Your task to perform on an android device: Show the shopping cart on costco. Add bose quietcomfort 35 to the cart on costco Image 0: 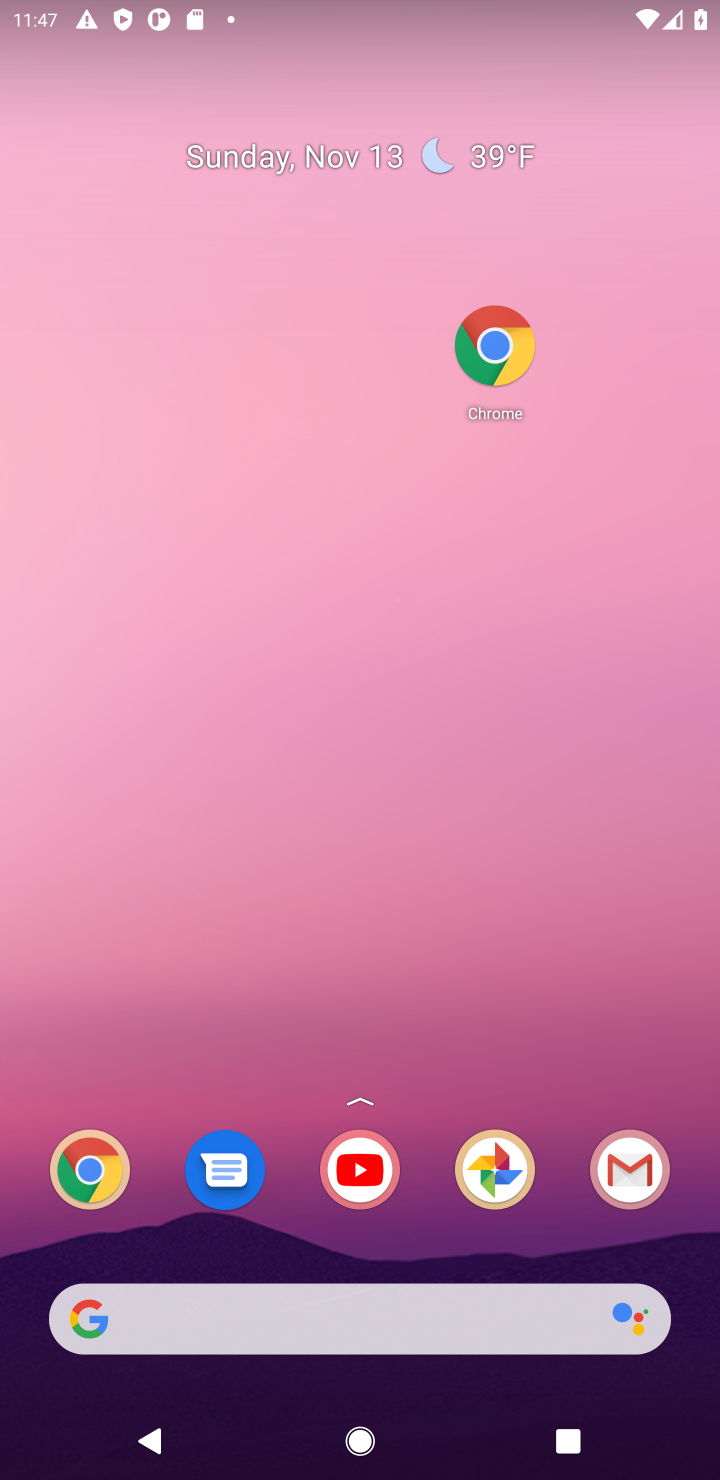
Step 0: drag from (270, 1194) to (217, 6)
Your task to perform on an android device: Show the shopping cart on costco. Add bose quietcomfort 35 to the cart on costco Image 1: 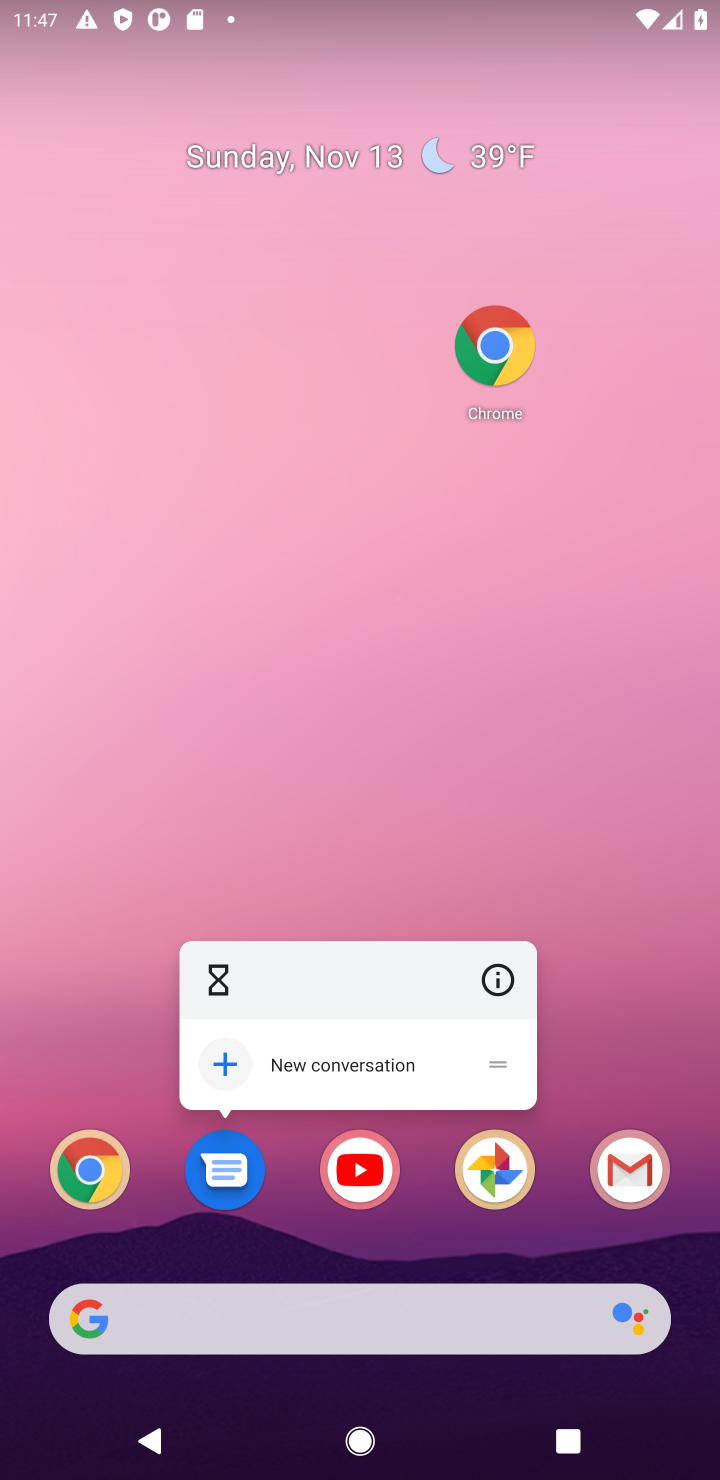
Step 1: click (371, 600)
Your task to perform on an android device: Show the shopping cart on costco. Add bose quietcomfort 35 to the cart on costco Image 2: 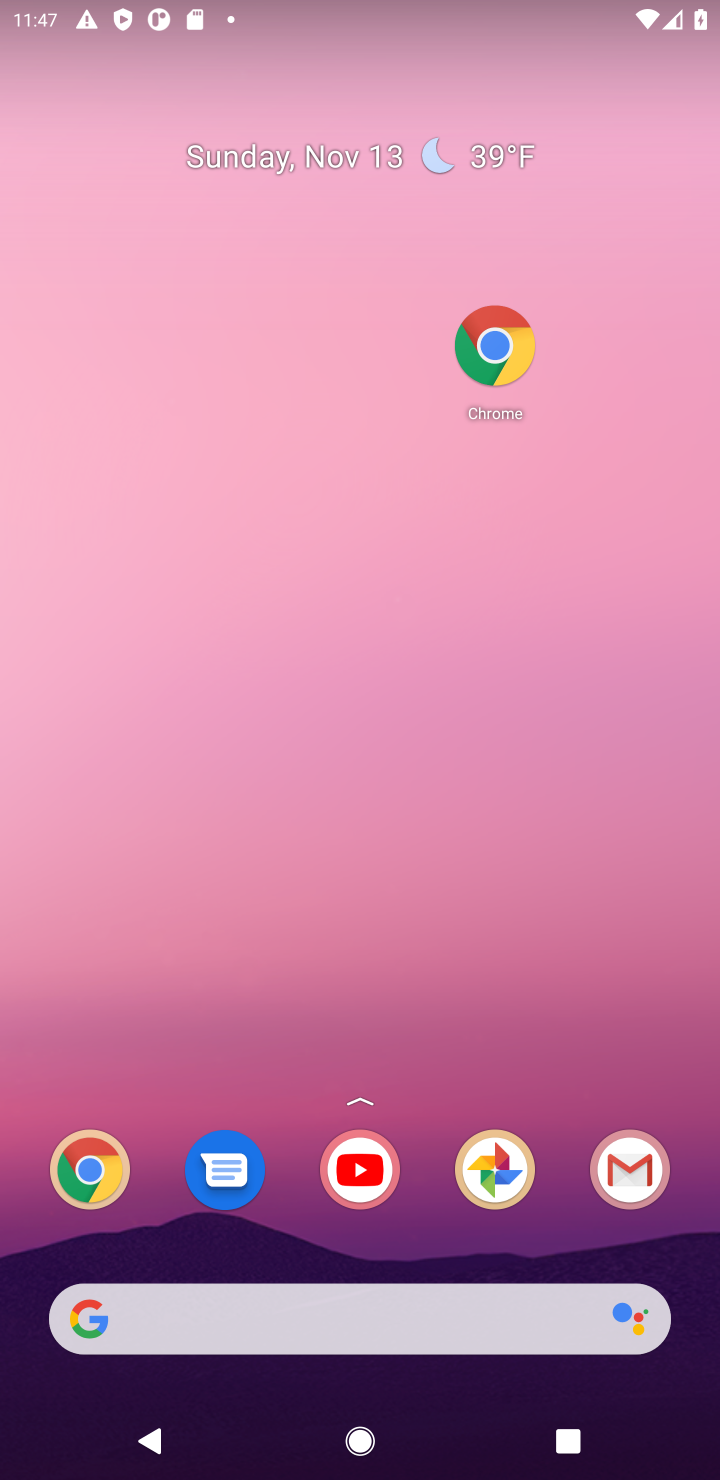
Step 2: drag from (330, 1256) to (285, 11)
Your task to perform on an android device: Show the shopping cart on costco. Add bose quietcomfort 35 to the cart on costco Image 3: 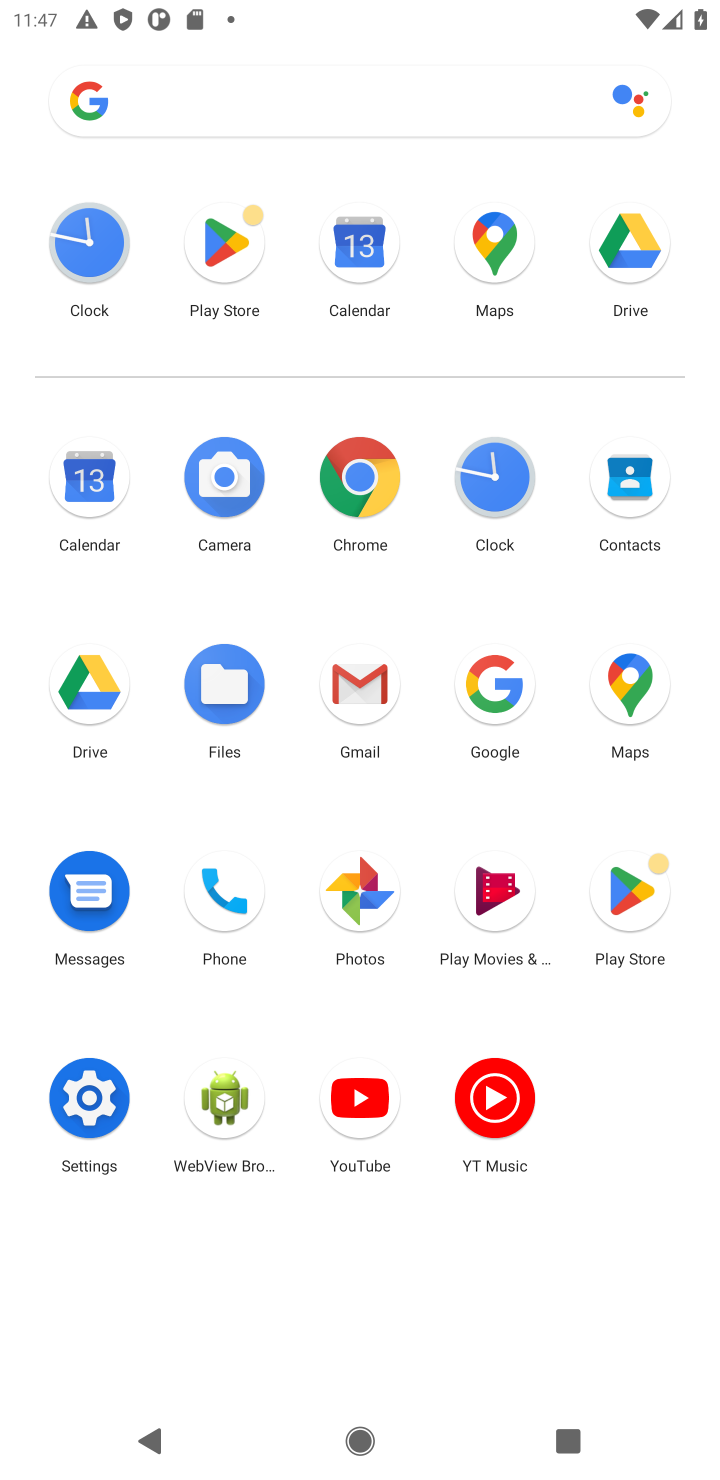
Step 3: click (378, 482)
Your task to perform on an android device: Show the shopping cart on costco. Add bose quietcomfort 35 to the cart on costco Image 4: 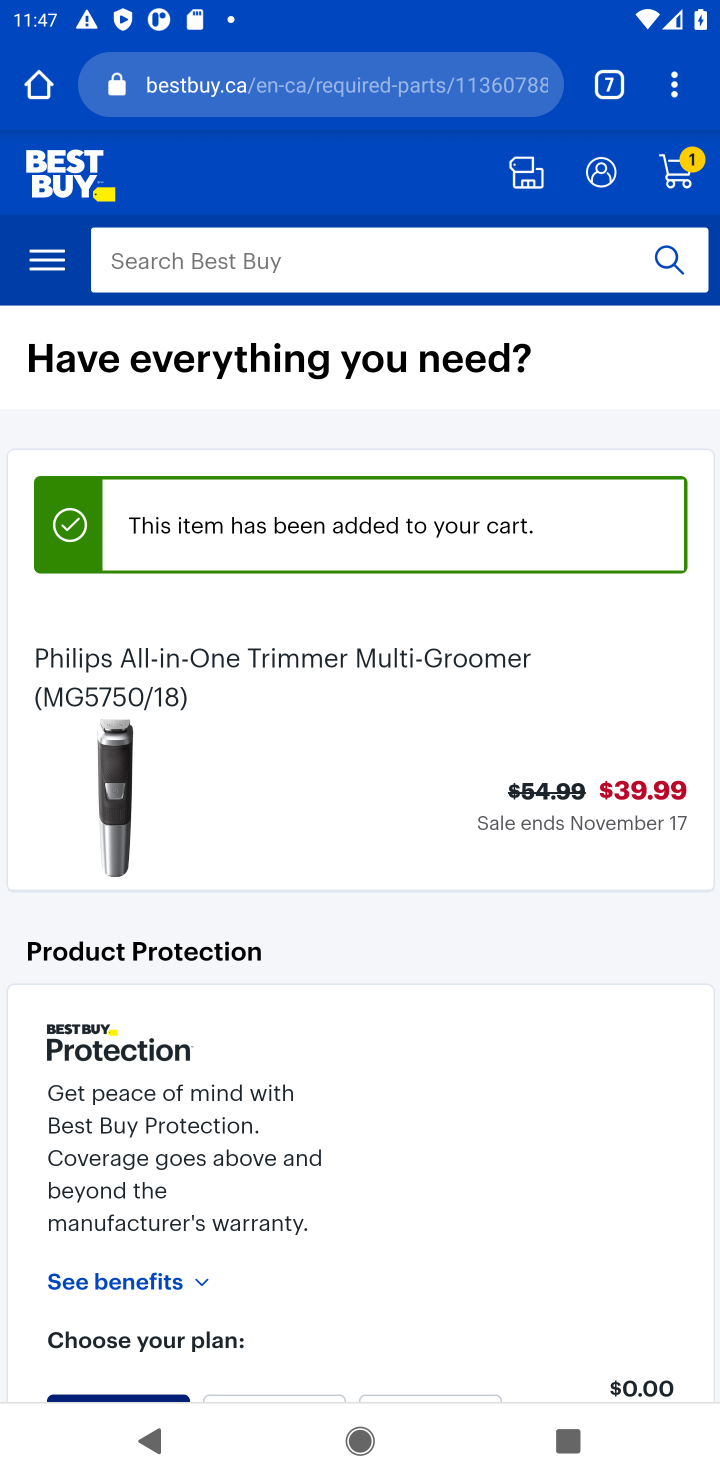
Step 4: click (387, 240)
Your task to perform on an android device: Show the shopping cart on costco. Add bose quietcomfort 35 to the cart on costco Image 5: 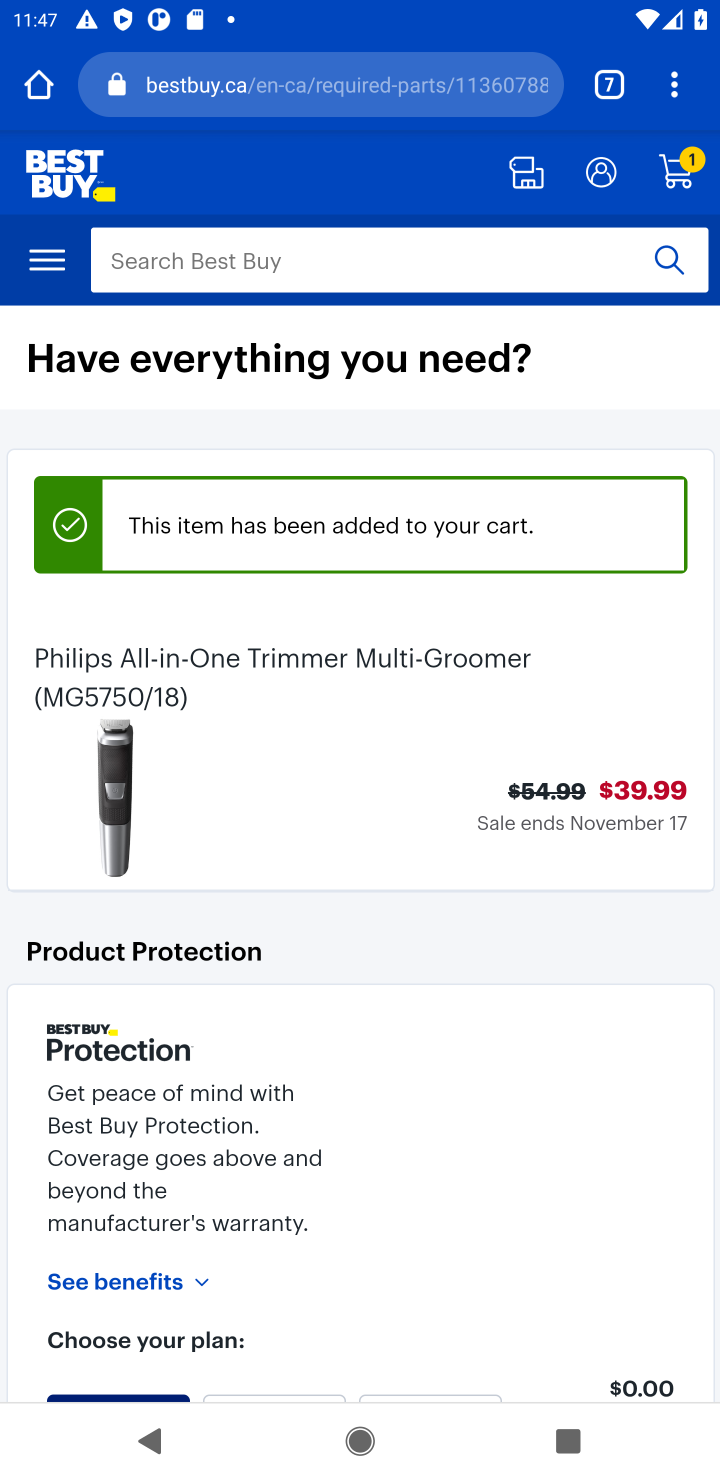
Step 5: click (375, 77)
Your task to perform on an android device: Show the shopping cart on costco. Add bose quietcomfort 35 to the cart on costco Image 6: 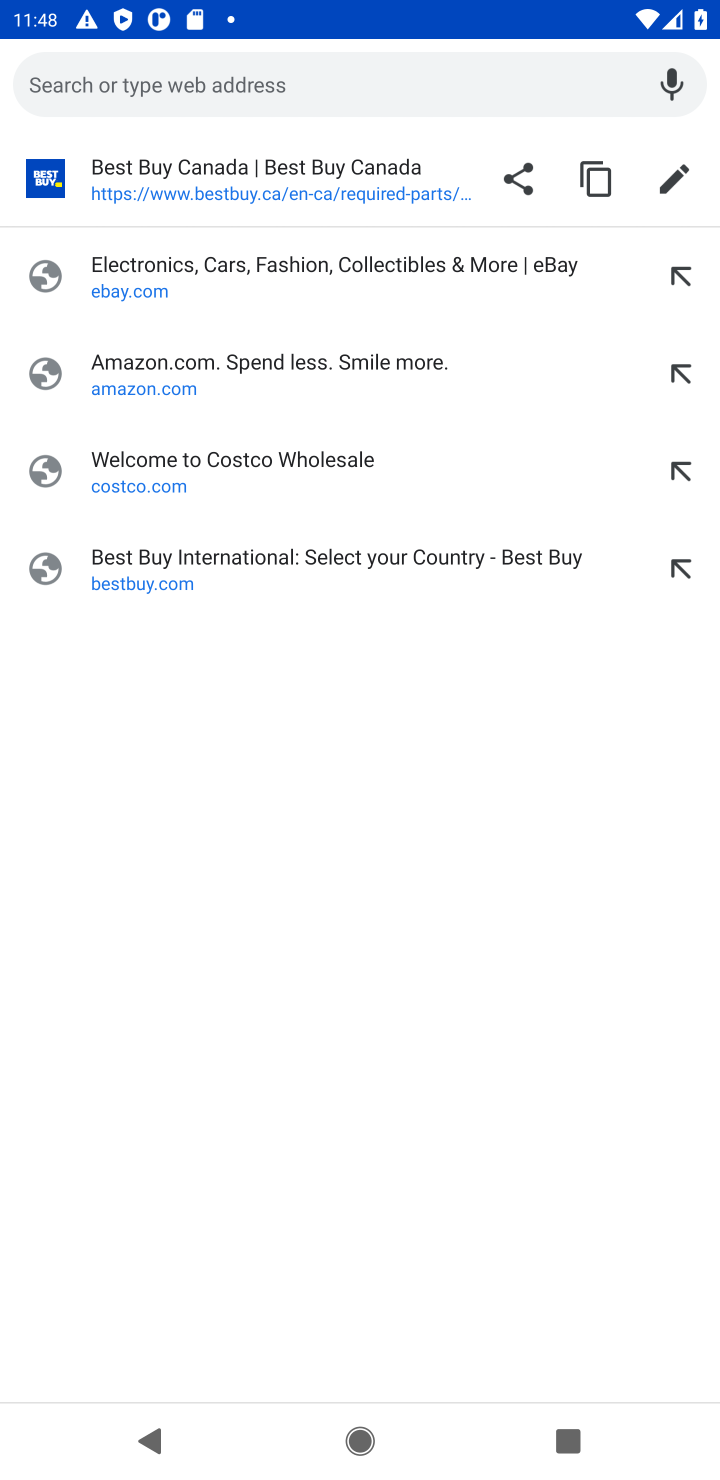
Step 6: type "costco"
Your task to perform on an android device: Show the shopping cart on costco. Add bose quietcomfort 35 to the cart on costco Image 7: 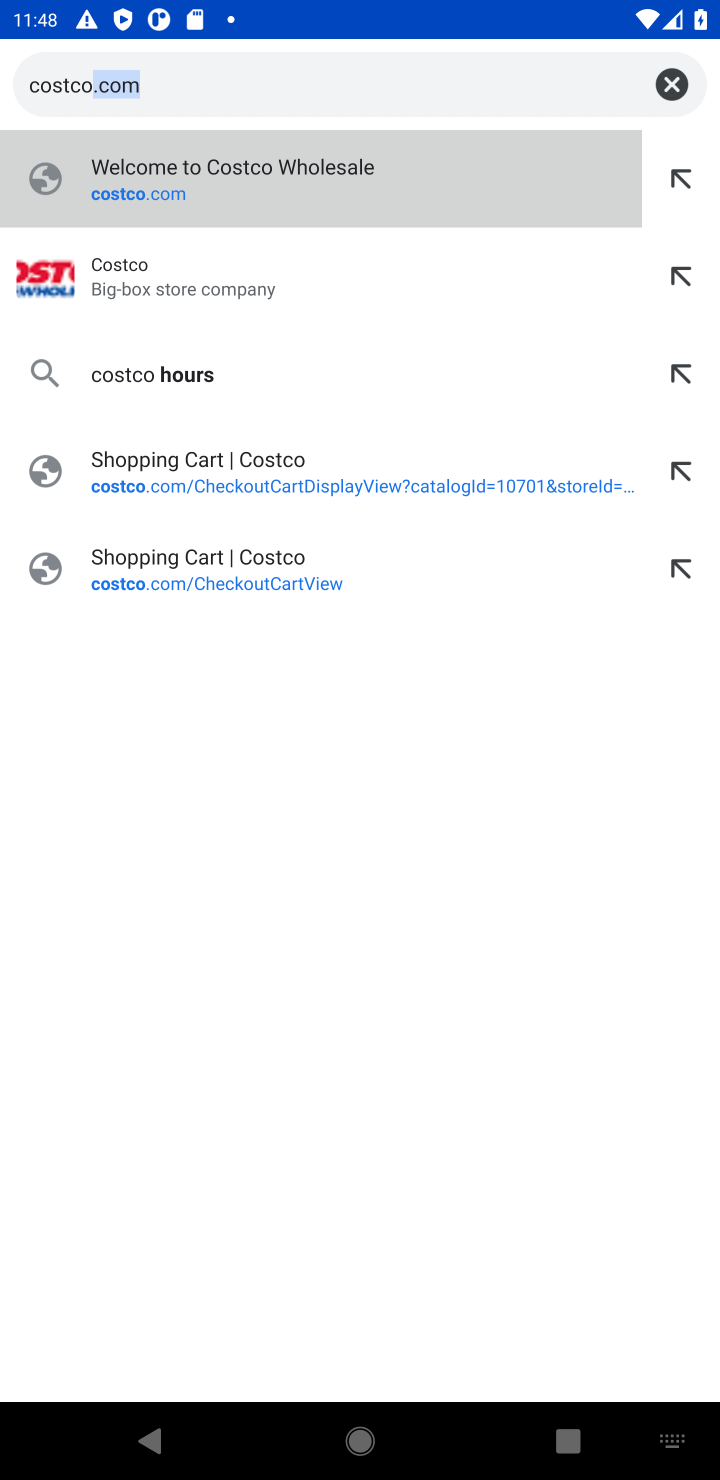
Step 7: press enter
Your task to perform on an android device: Show the shopping cart on costco. Add bose quietcomfort 35 to the cart on costco Image 8: 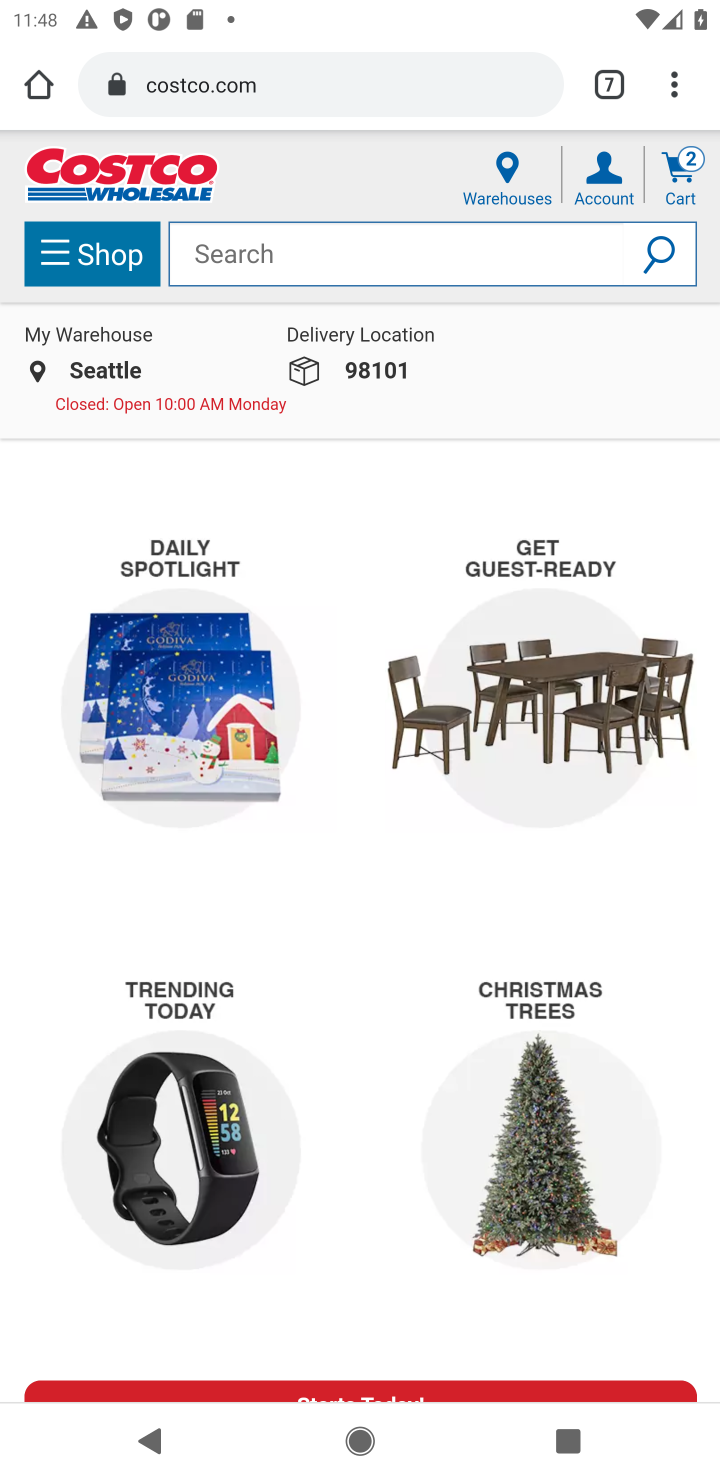
Step 8: click (279, 247)
Your task to perform on an android device: Show the shopping cart on costco. Add bose quietcomfort 35 to the cart on costco Image 9: 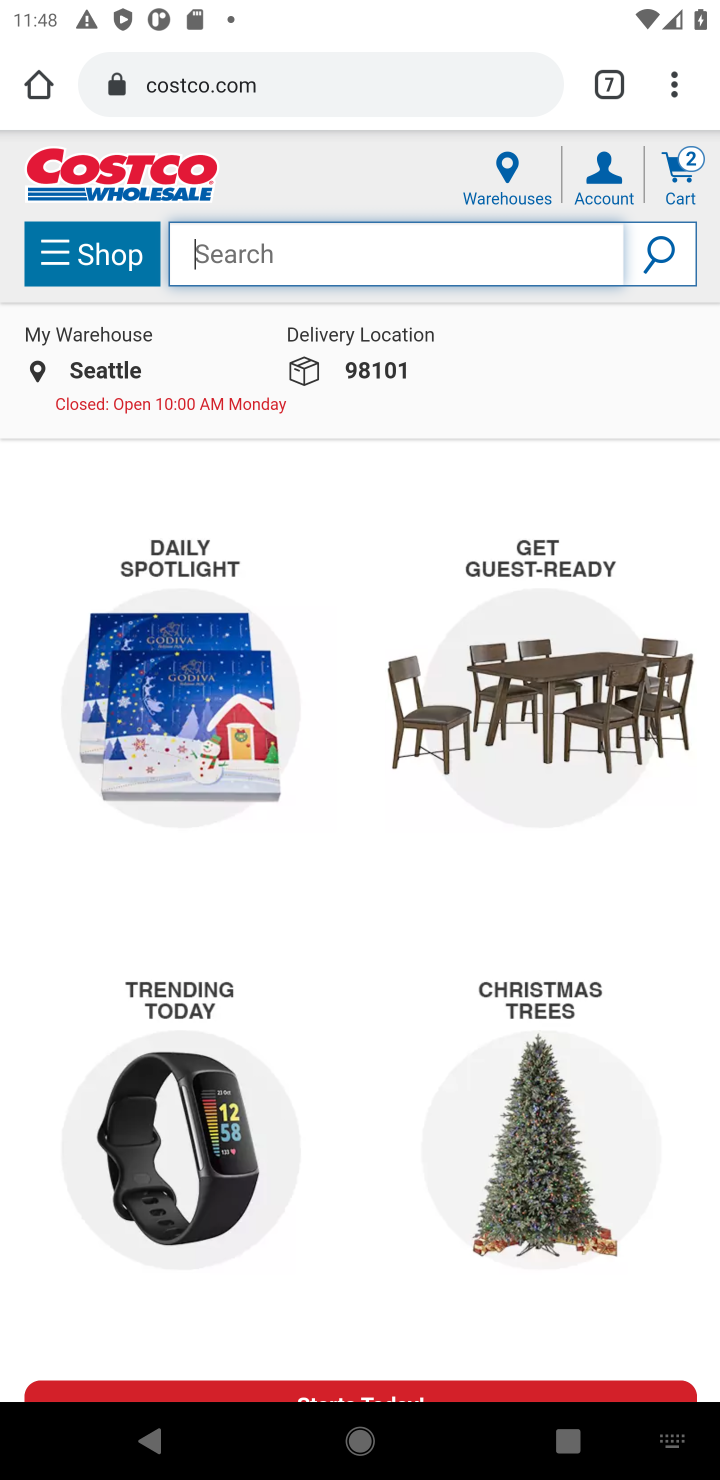
Step 9: press enter
Your task to perform on an android device: Show the shopping cart on costco. Add bose quietcomfort 35 to the cart on costco Image 10: 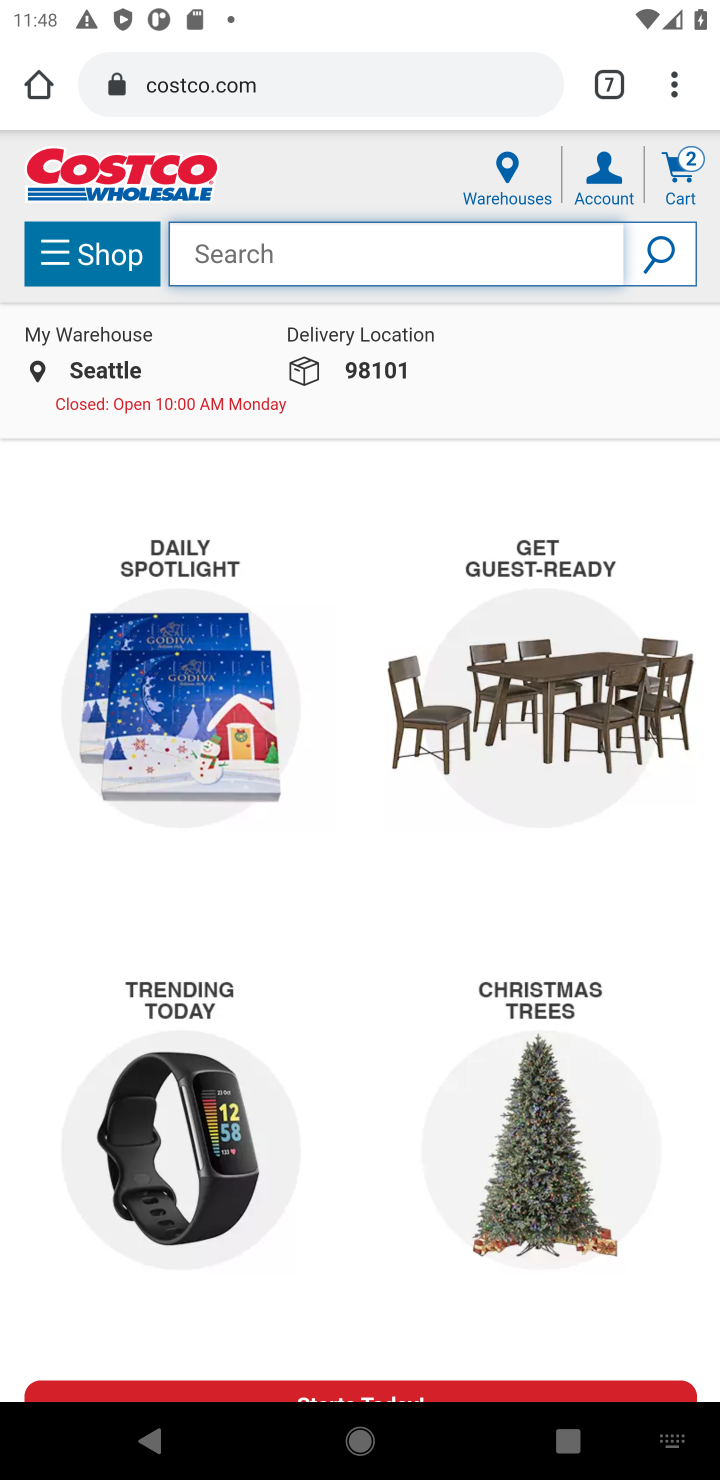
Step 10: type "bose quietcomfort 35 "
Your task to perform on an android device: Show the shopping cart on costco. Add bose quietcomfort 35 to the cart on costco Image 11: 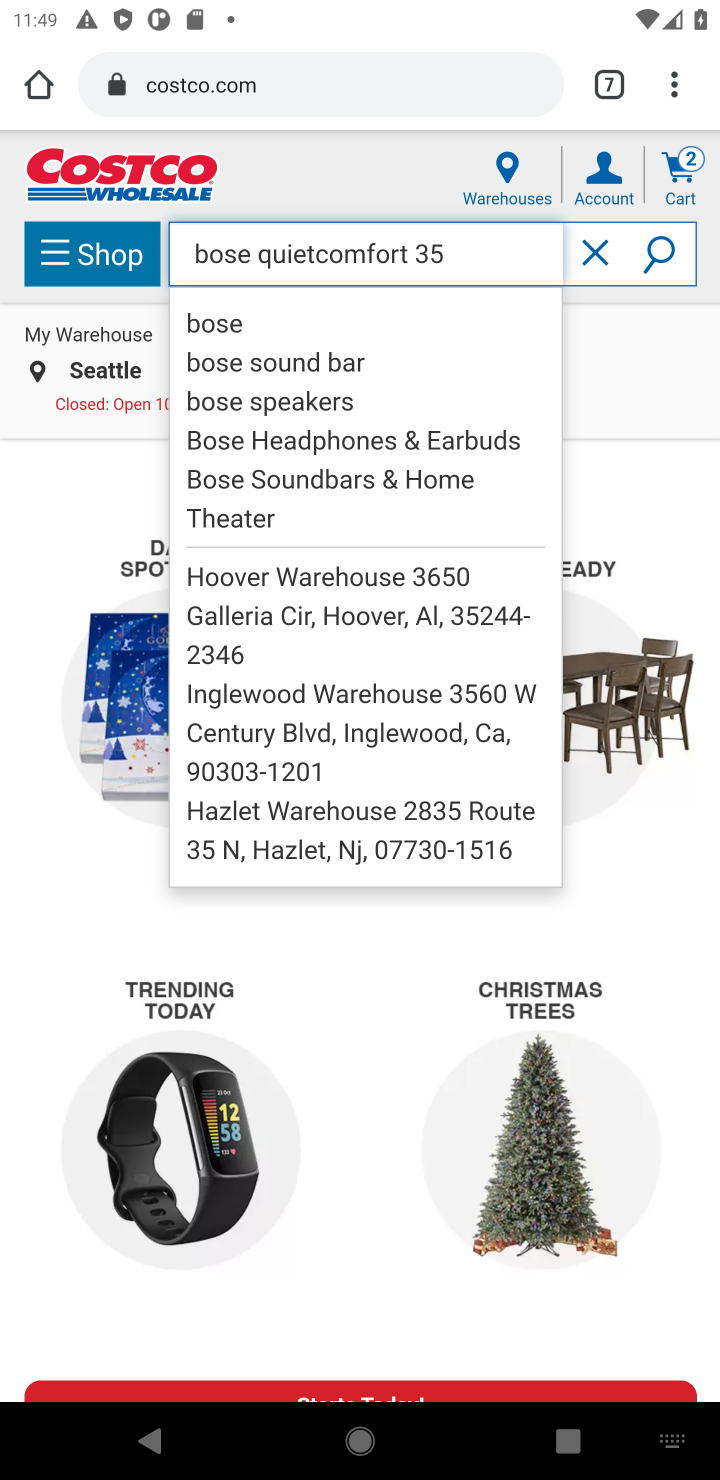
Step 11: press enter
Your task to perform on an android device: Show the shopping cart on costco. Add bose quietcomfort 35 to the cart on costco Image 12: 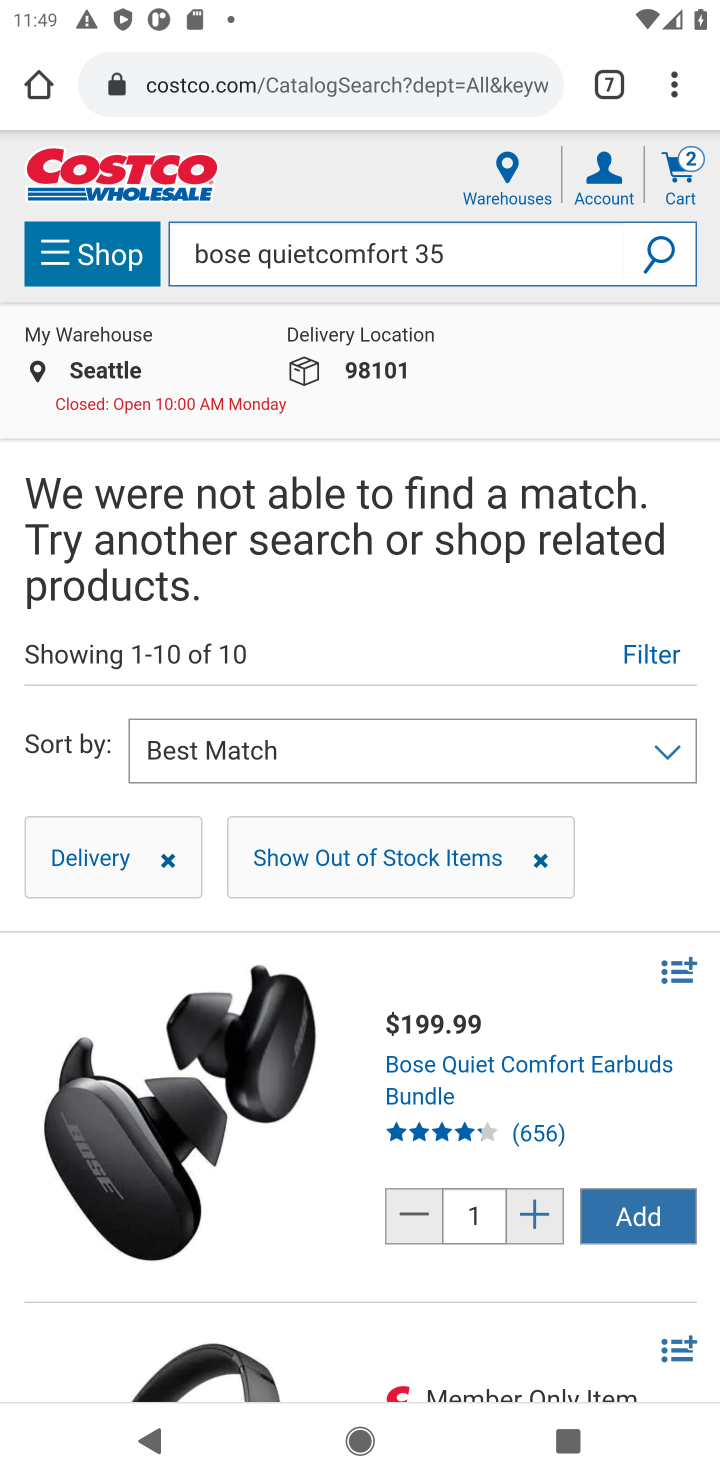
Step 12: click (648, 1206)
Your task to perform on an android device: Show the shopping cart on costco. Add bose quietcomfort 35 to the cart on costco Image 13: 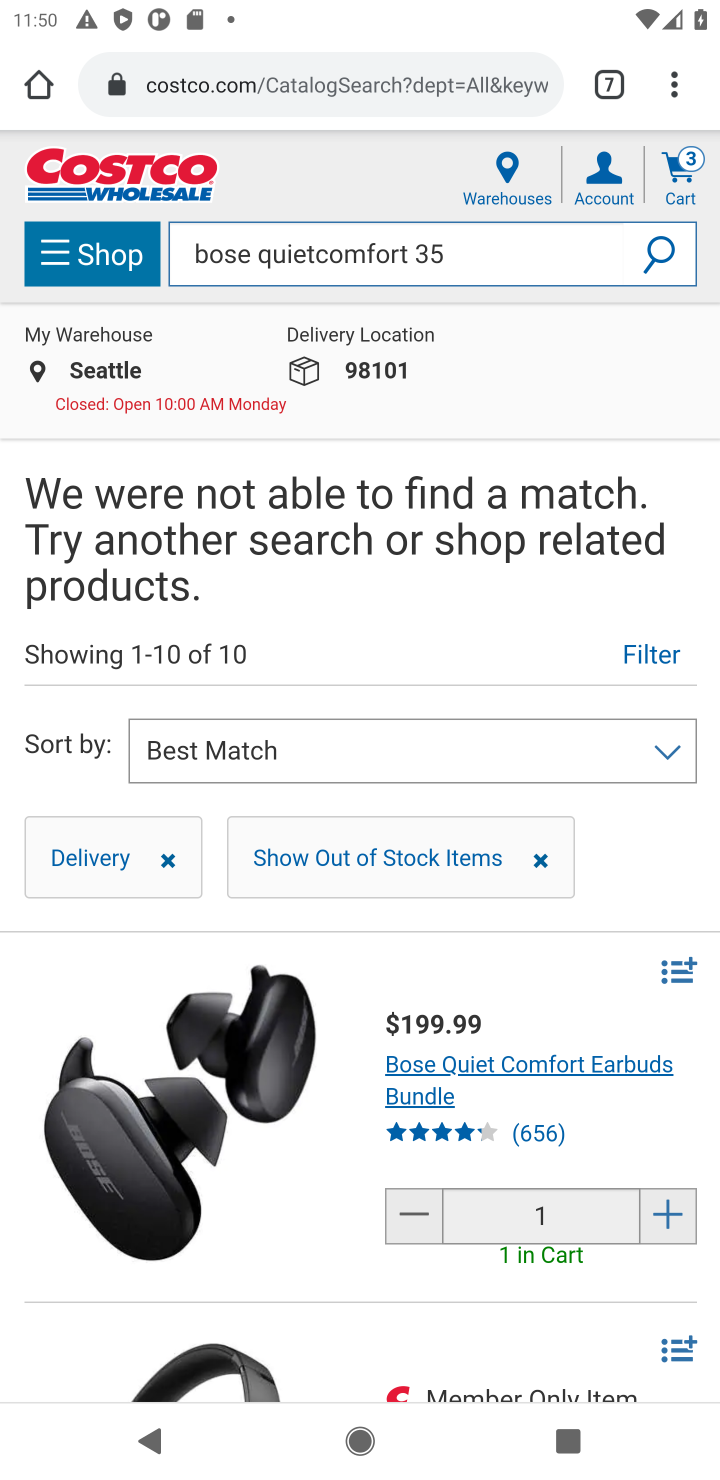
Step 13: task complete